Your task to perform on an android device: toggle airplane mode Image 0: 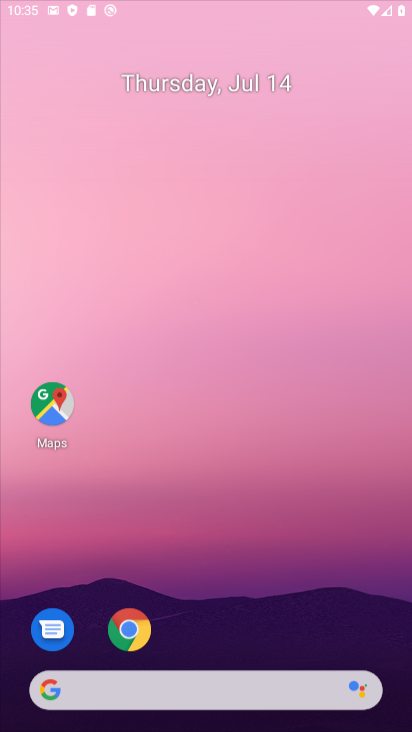
Step 0: press back button
Your task to perform on an android device: toggle airplane mode Image 1: 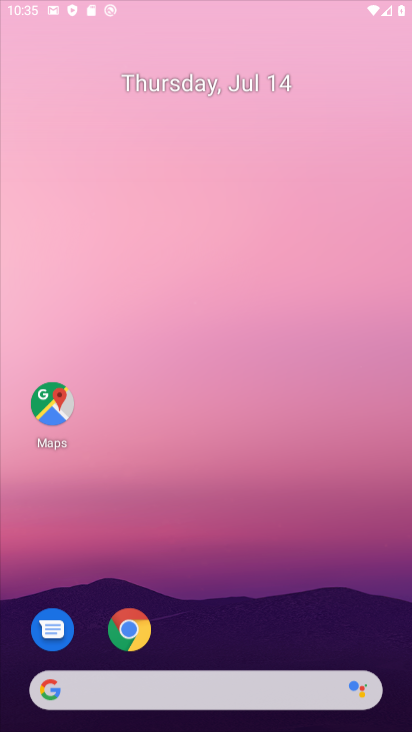
Step 1: press home button
Your task to perform on an android device: toggle airplane mode Image 2: 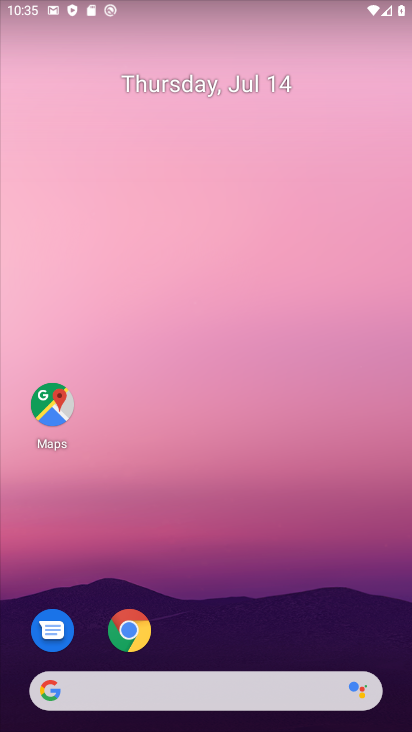
Step 2: drag from (377, 633) to (252, 54)
Your task to perform on an android device: toggle airplane mode Image 3: 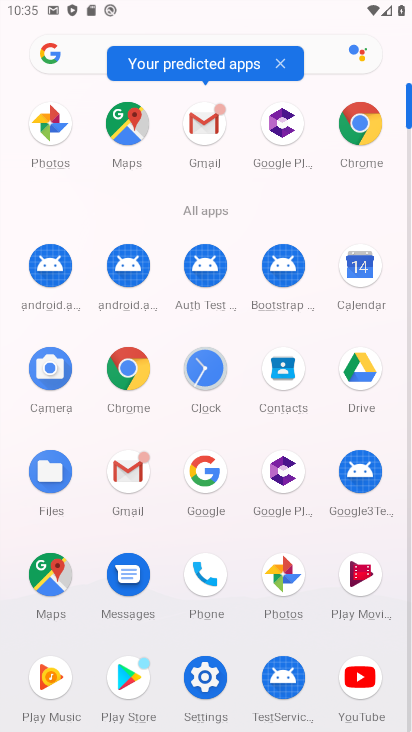
Step 3: click (204, 678)
Your task to perform on an android device: toggle airplane mode Image 4: 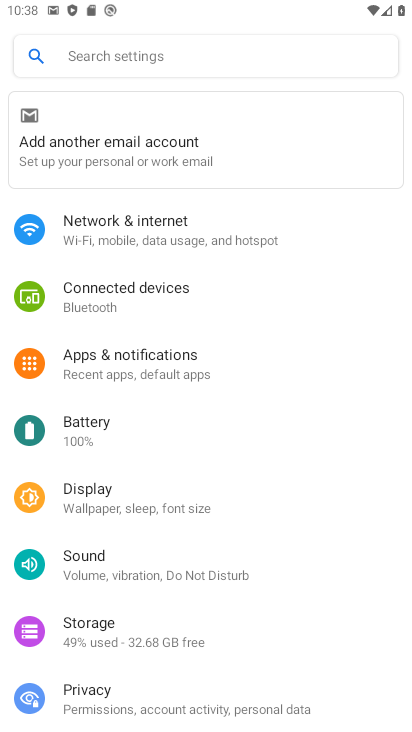
Step 4: click (186, 217)
Your task to perform on an android device: toggle airplane mode Image 5: 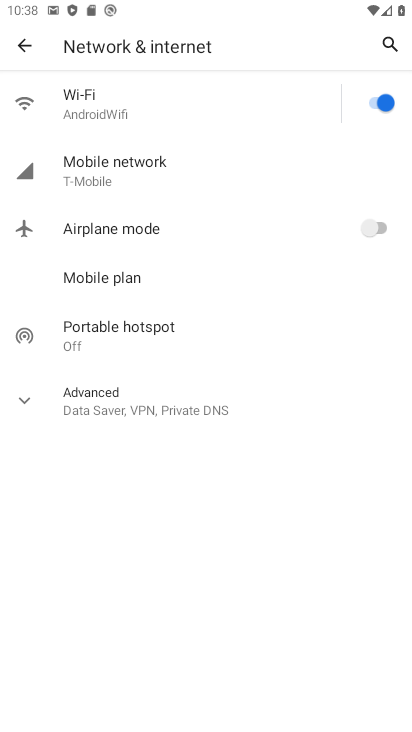
Step 5: click (382, 225)
Your task to perform on an android device: toggle airplane mode Image 6: 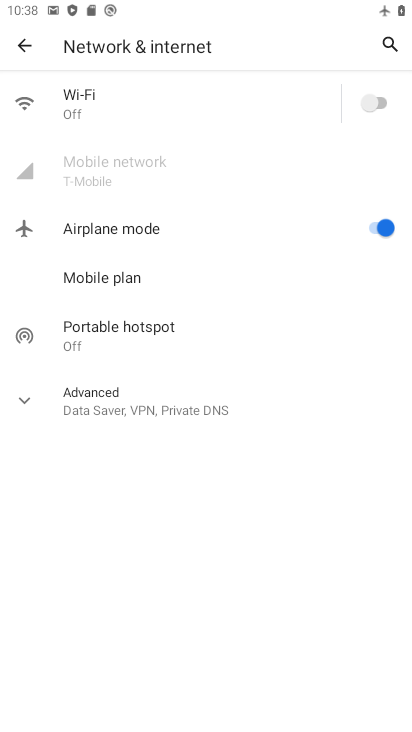
Step 6: task complete